Your task to perform on an android device: turn on improve location accuracy Image 0: 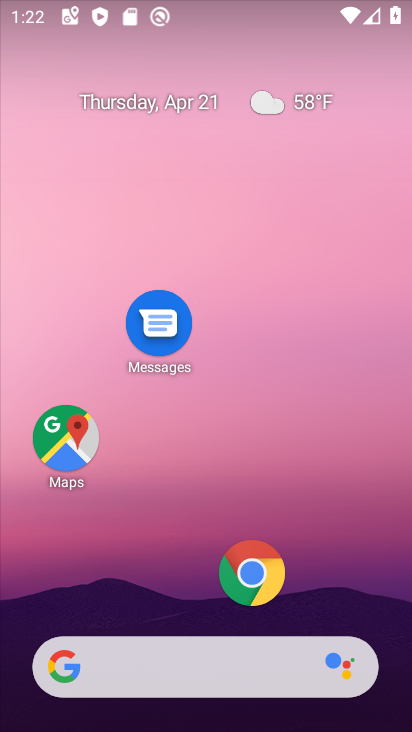
Step 0: drag from (170, 525) to (163, 152)
Your task to perform on an android device: turn on improve location accuracy Image 1: 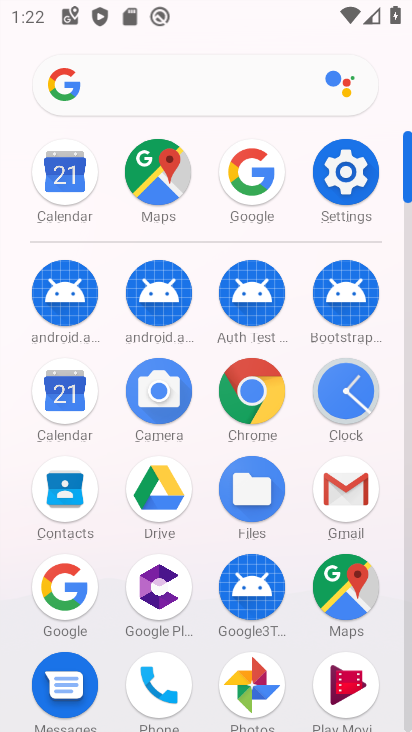
Step 1: click (346, 176)
Your task to perform on an android device: turn on improve location accuracy Image 2: 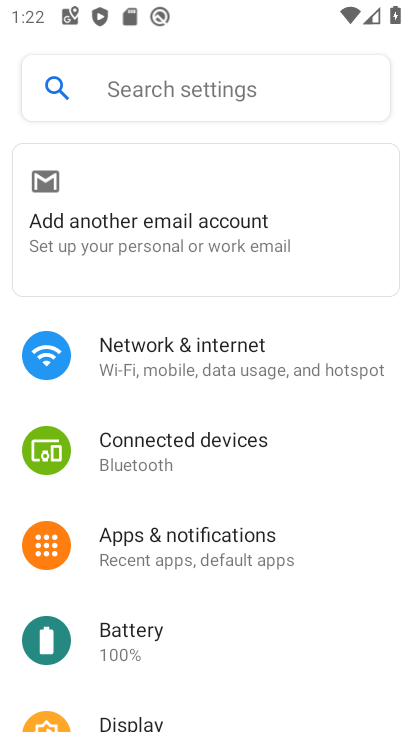
Step 2: drag from (223, 536) to (372, 7)
Your task to perform on an android device: turn on improve location accuracy Image 3: 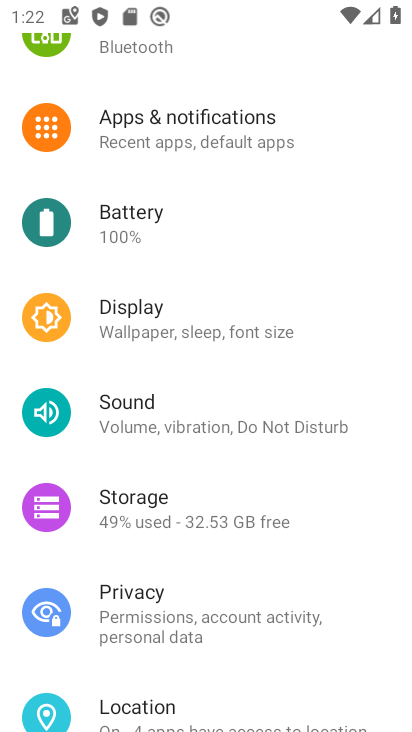
Step 3: click (154, 698)
Your task to perform on an android device: turn on improve location accuracy Image 4: 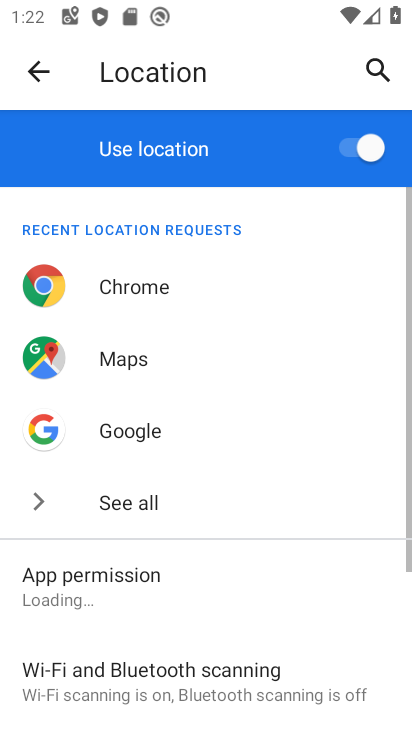
Step 4: drag from (240, 607) to (236, 206)
Your task to perform on an android device: turn on improve location accuracy Image 5: 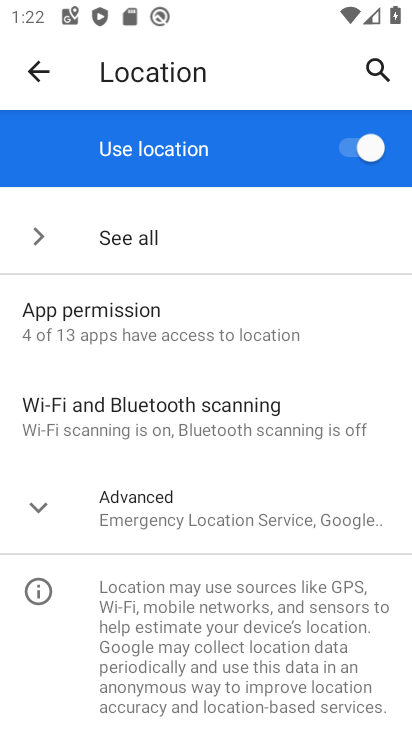
Step 5: click (158, 516)
Your task to perform on an android device: turn on improve location accuracy Image 6: 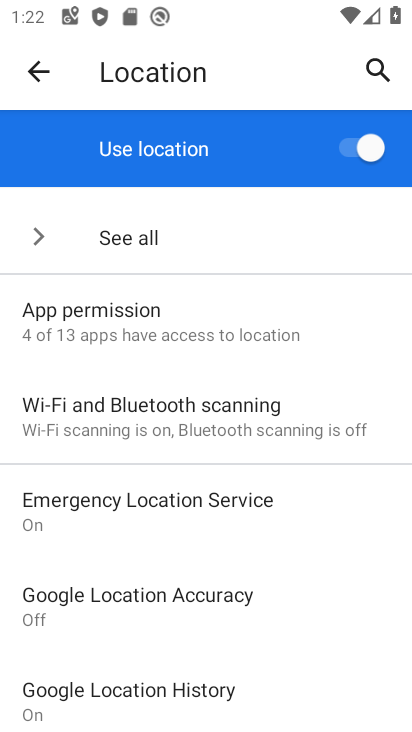
Step 6: click (204, 606)
Your task to perform on an android device: turn on improve location accuracy Image 7: 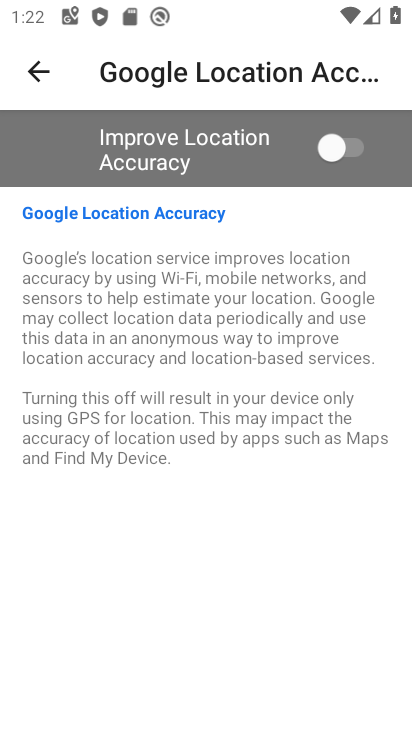
Step 7: click (343, 141)
Your task to perform on an android device: turn on improve location accuracy Image 8: 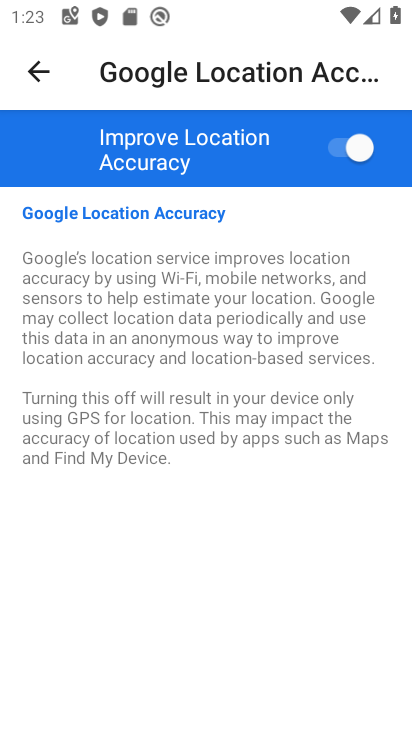
Step 8: task complete